Your task to perform on an android device: change notifications settings Image 0: 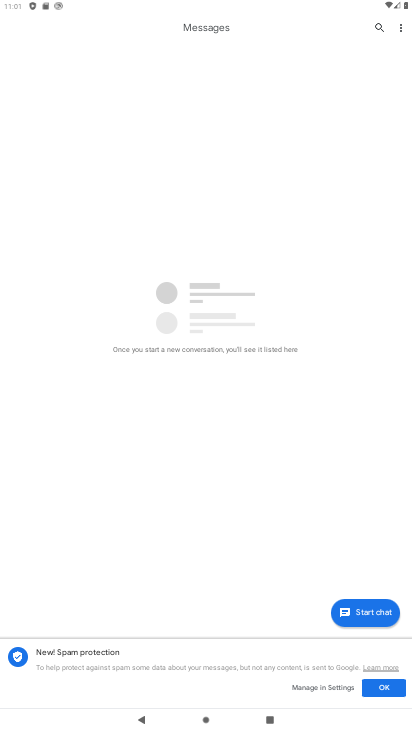
Step 0: press home button
Your task to perform on an android device: change notifications settings Image 1: 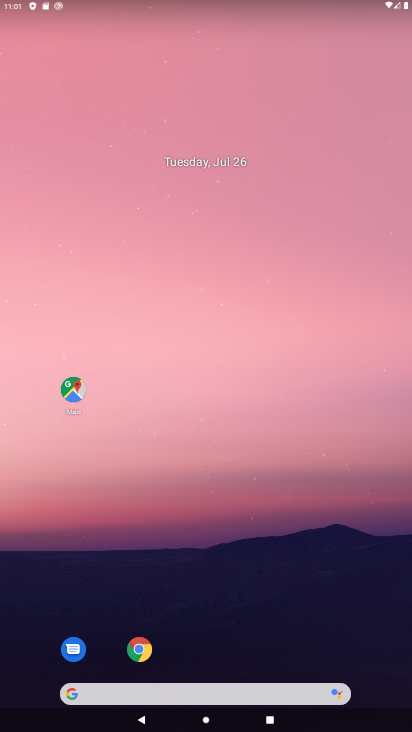
Step 1: drag from (206, 656) to (213, 16)
Your task to perform on an android device: change notifications settings Image 2: 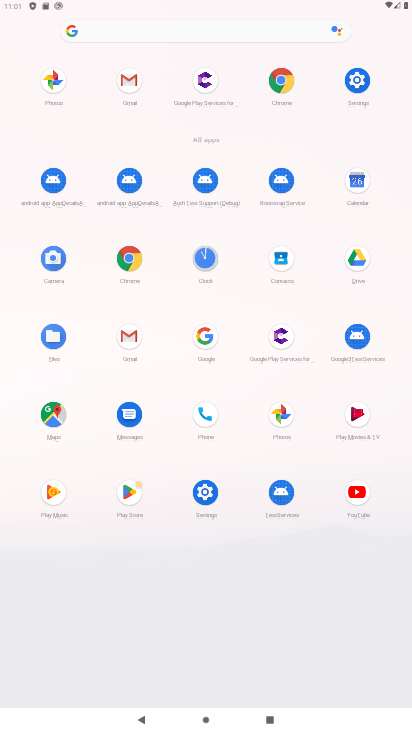
Step 2: click (201, 504)
Your task to perform on an android device: change notifications settings Image 3: 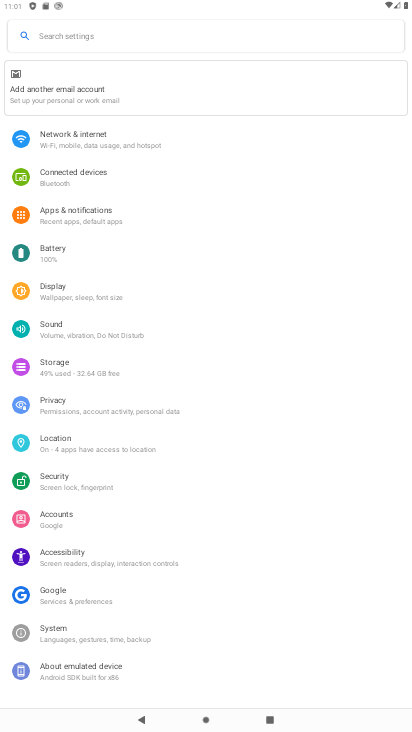
Step 3: click (87, 214)
Your task to perform on an android device: change notifications settings Image 4: 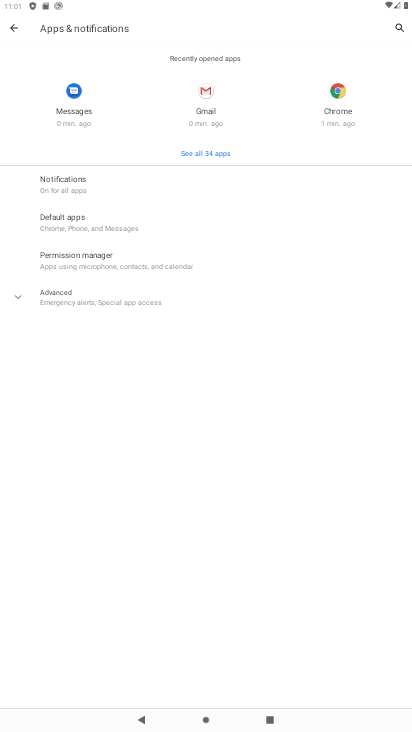
Step 4: click (65, 192)
Your task to perform on an android device: change notifications settings Image 5: 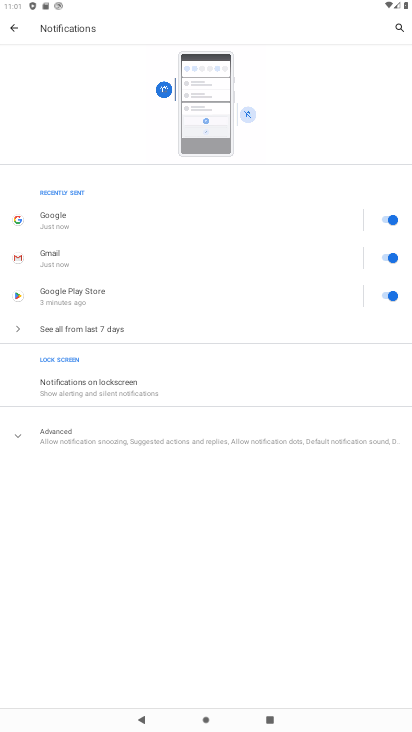
Step 5: click (95, 329)
Your task to perform on an android device: change notifications settings Image 6: 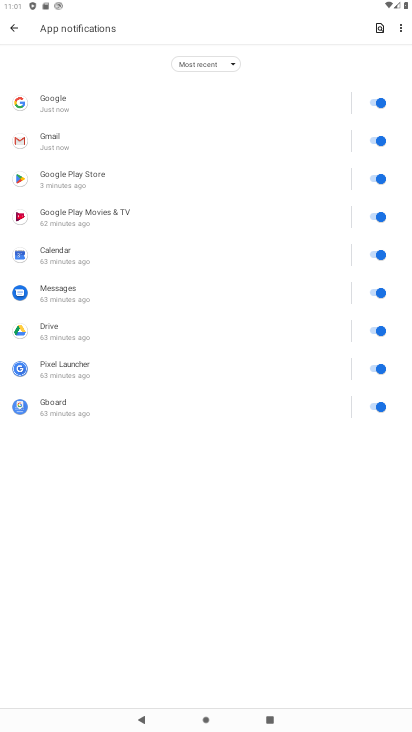
Step 6: click (369, 98)
Your task to perform on an android device: change notifications settings Image 7: 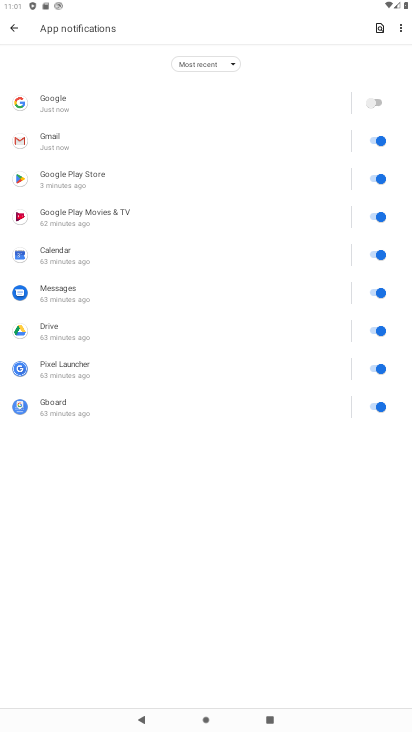
Step 7: click (369, 141)
Your task to perform on an android device: change notifications settings Image 8: 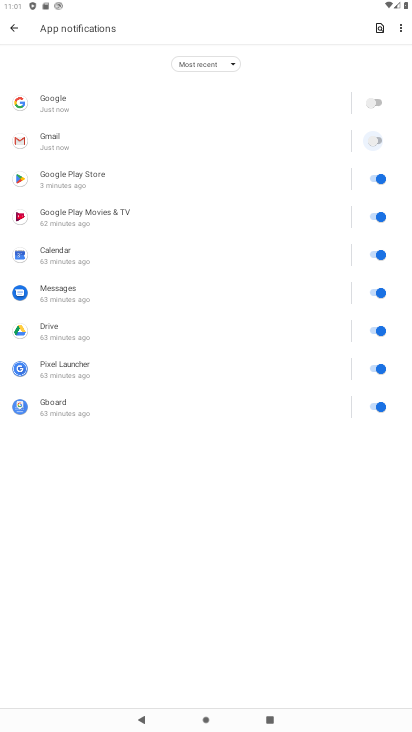
Step 8: click (371, 173)
Your task to perform on an android device: change notifications settings Image 9: 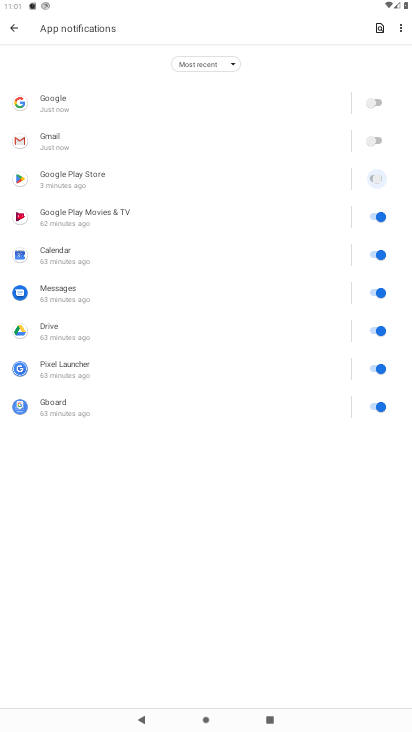
Step 9: click (370, 218)
Your task to perform on an android device: change notifications settings Image 10: 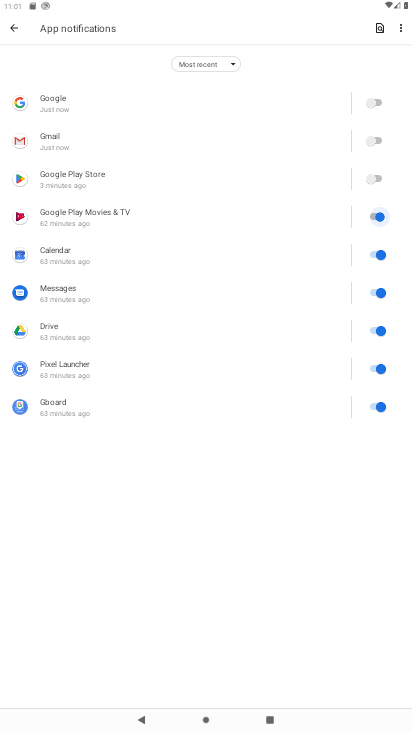
Step 10: click (366, 252)
Your task to perform on an android device: change notifications settings Image 11: 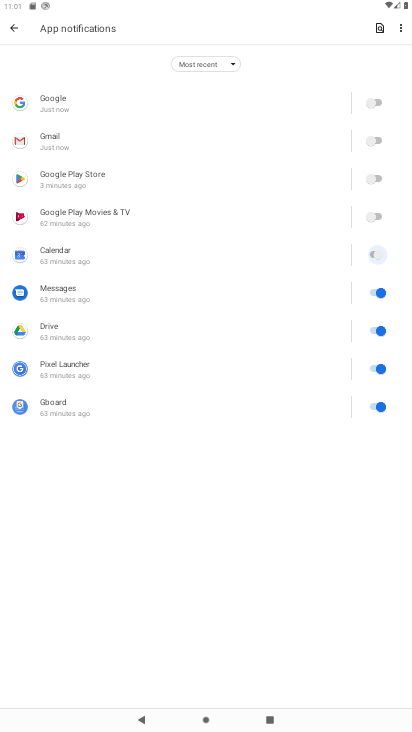
Step 11: click (364, 285)
Your task to perform on an android device: change notifications settings Image 12: 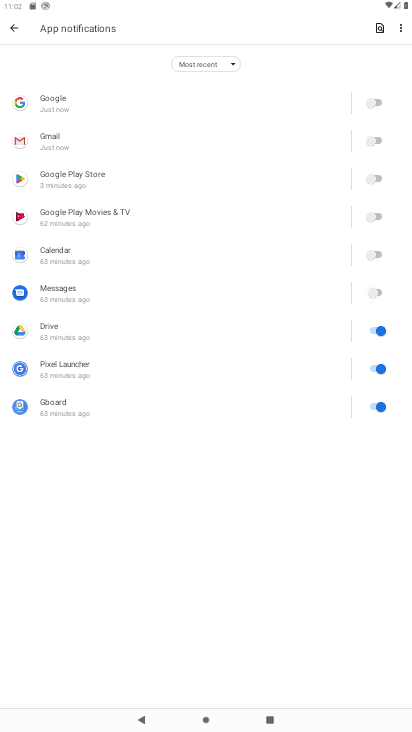
Step 12: click (363, 328)
Your task to perform on an android device: change notifications settings Image 13: 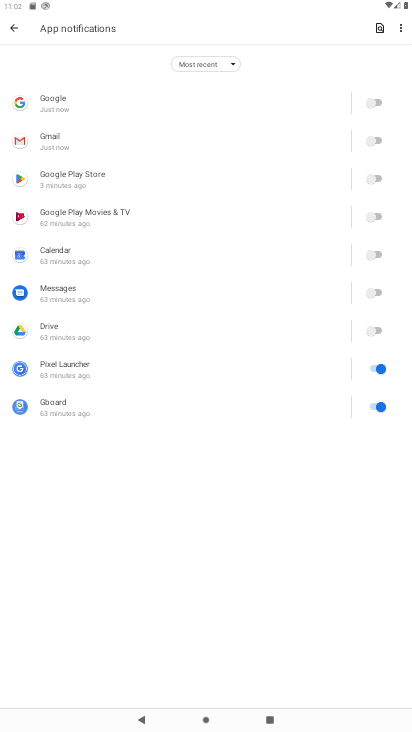
Step 13: click (367, 374)
Your task to perform on an android device: change notifications settings Image 14: 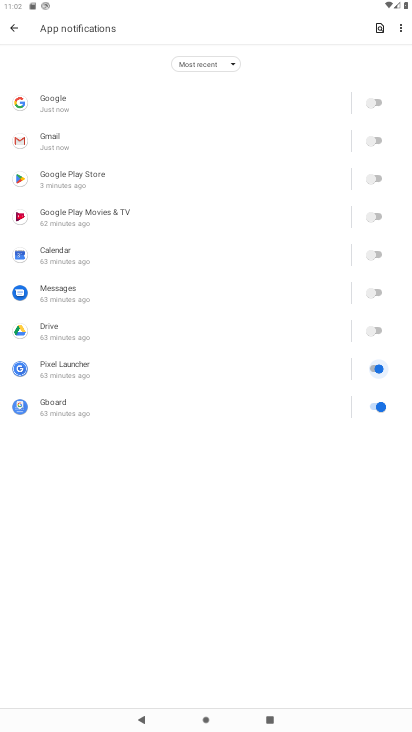
Step 14: click (367, 397)
Your task to perform on an android device: change notifications settings Image 15: 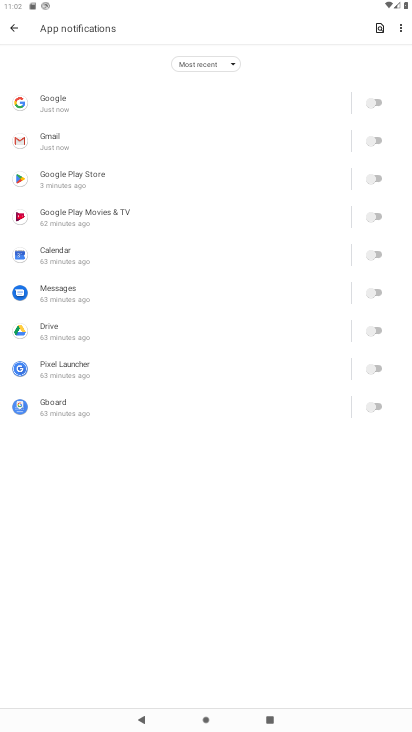
Step 15: task complete